Your task to perform on an android device: Search for Mexican restaurants on Maps Image 0: 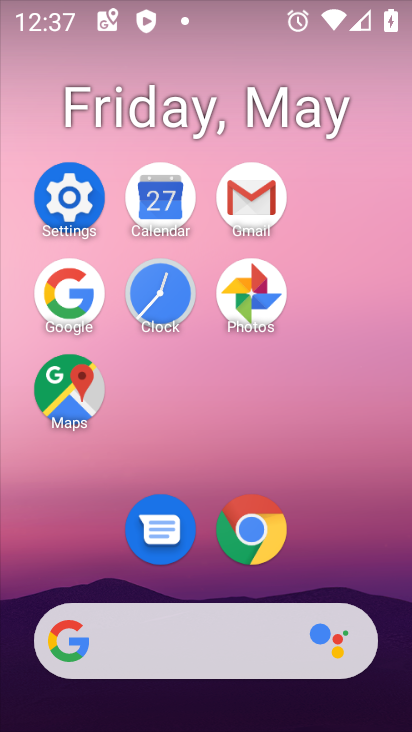
Step 0: click (80, 351)
Your task to perform on an android device: Search for Mexican restaurants on Maps Image 1: 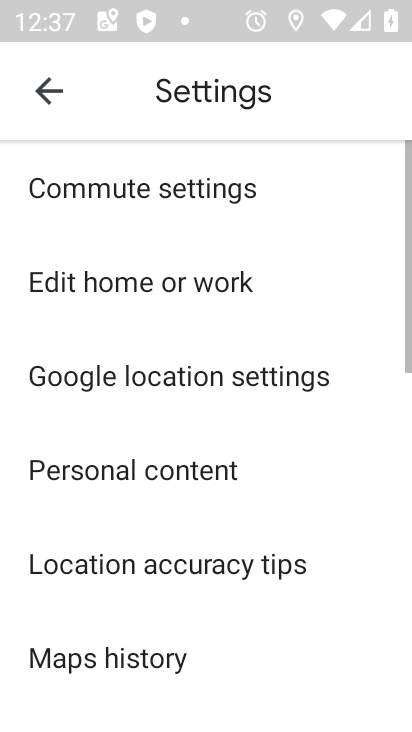
Step 1: click (70, 86)
Your task to perform on an android device: Search for Mexican restaurants on Maps Image 2: 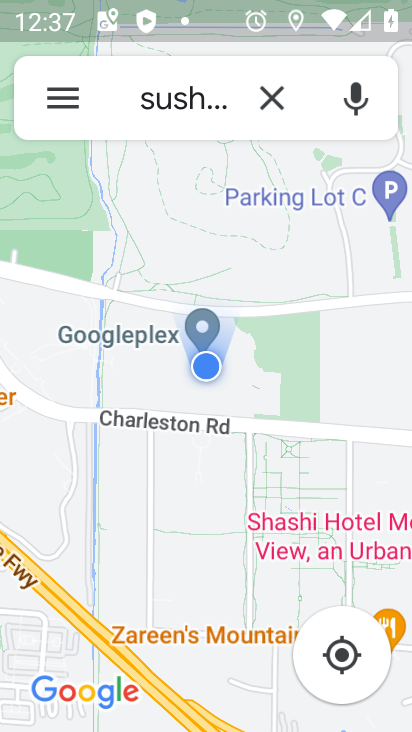
Step 2: click (258, 102)
Your task to perform on an android device: Search for Mexican restaurants on Maps Image 3: 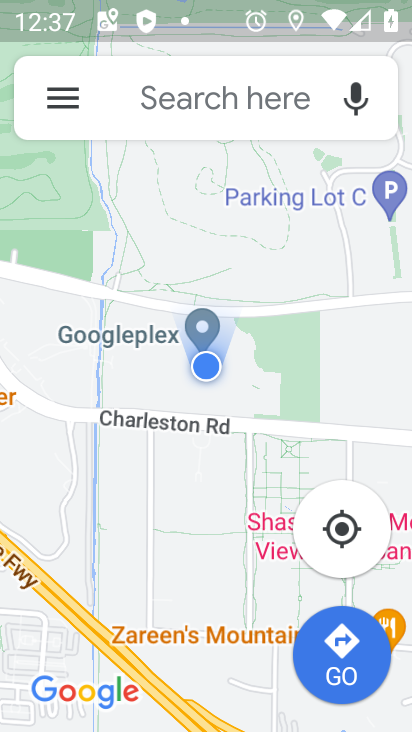
Step 3: click (258, 102)
Your task to perform on an android device: Search for Mexican restaurants on Maps Image 4: 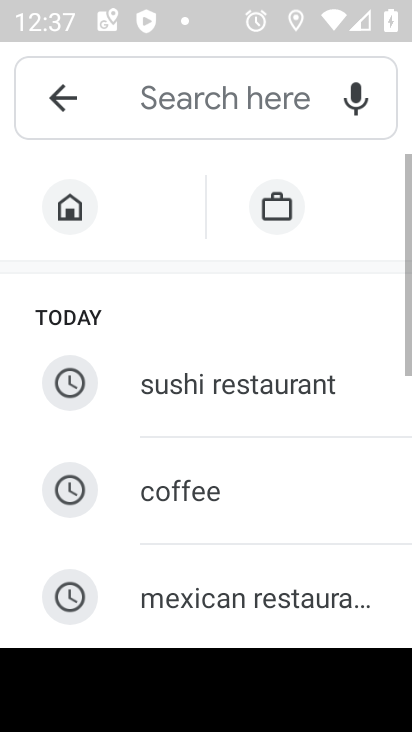
Step 4: drag from (281, 589) to (294, 255)
Your task to perform on an android device: Search for Mexican restaurants on Maps Image 5: 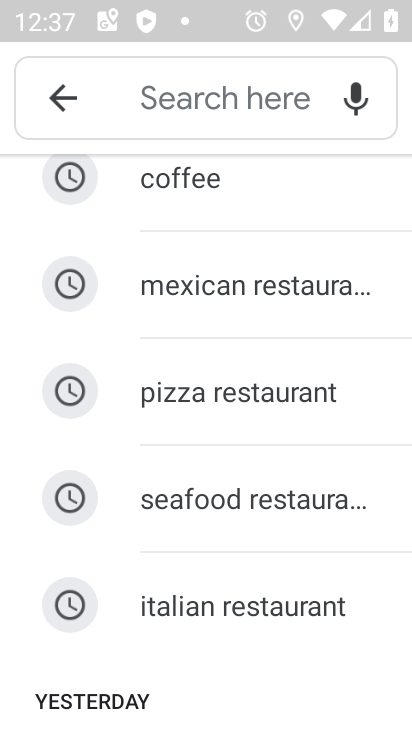
Step 5: click (271, 286)
Your task to perform on an android device: Search for Mexican restaurants on Maps Image 6: 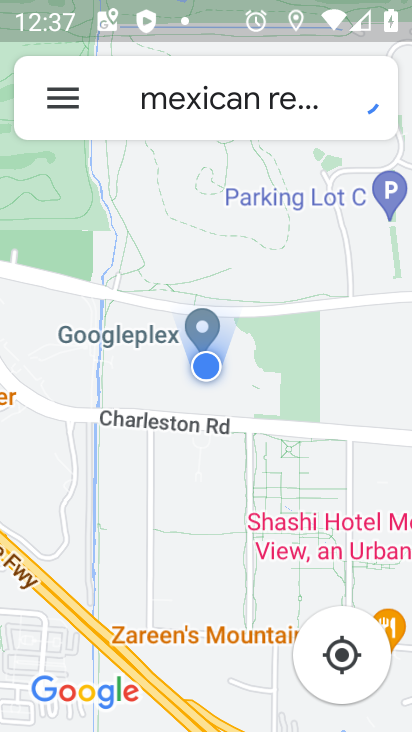
Step 6: task complete